Your task to perform on an android device: turn on wifi Image 0: 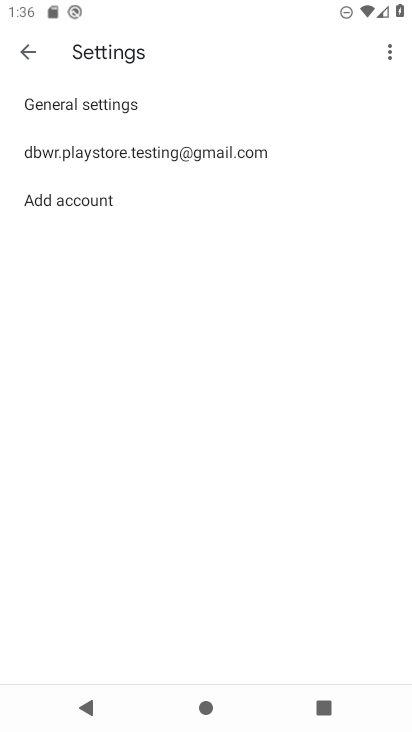
Step 0: press home button
Your task to perform on an android device: turn on wifi Image 1: 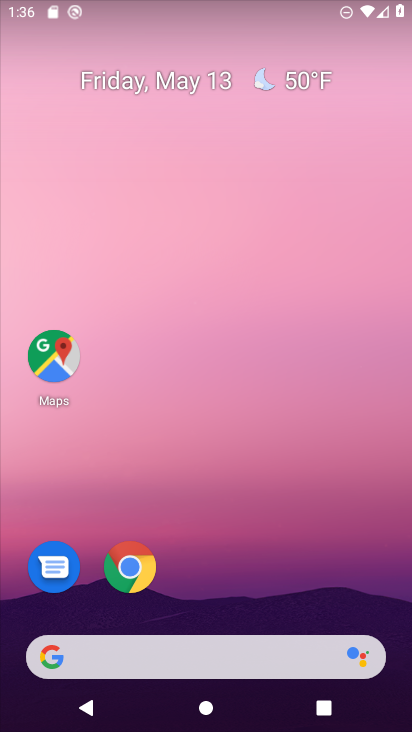
Step 1: drag from (223, 628) to (207, 203)
Your task to perform on an android device: turn on wifi Image 2: 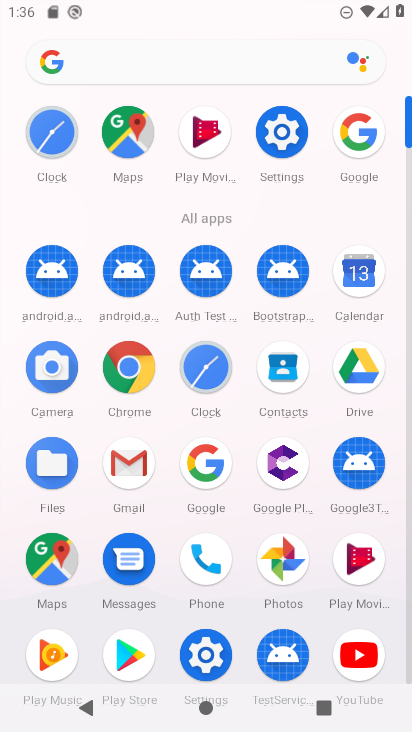
Step 2: click (276, 122)
Your task to perform on an android device: turn on wifi Image 3: 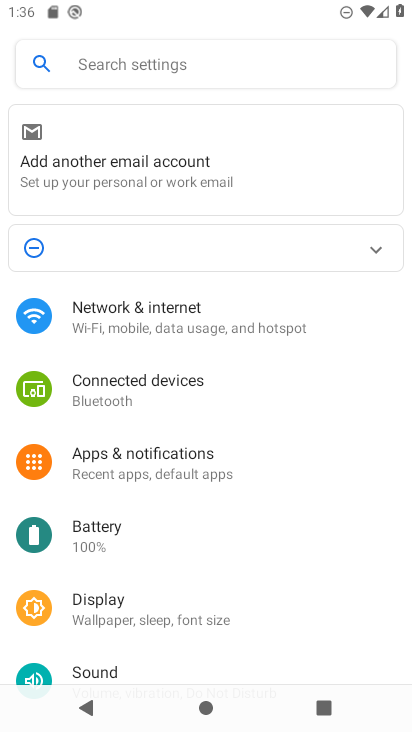
Step 3: click (165, 317)
Your task to perform on an android device: turn on wifi Image 4: 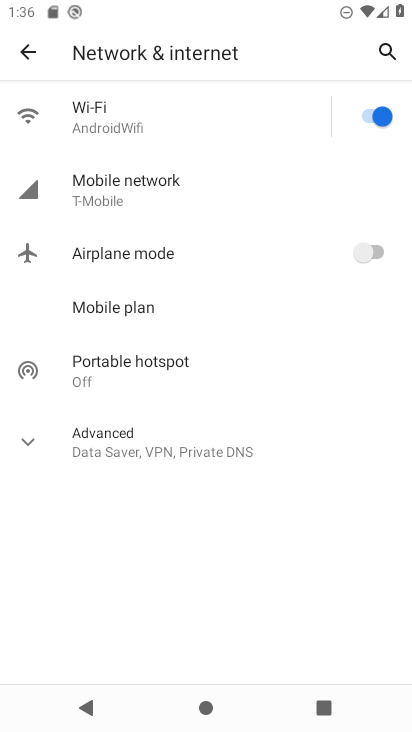
Step 4: task complete